Your task to perform on an android device: change the clock display to digital Image 0: 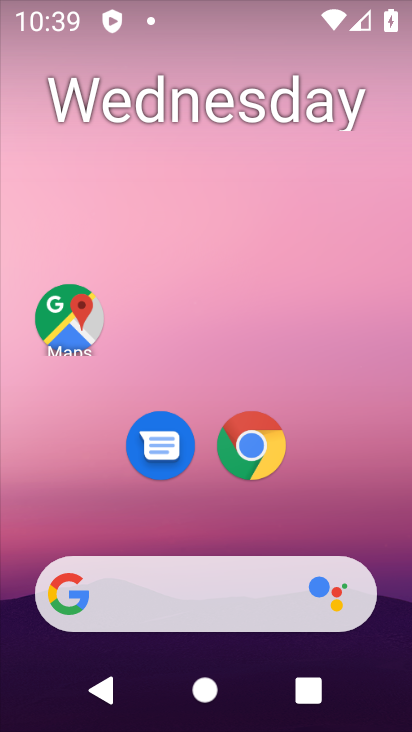
Step 0: drag from (299, 402) to (300, 179)
Your task to perform on an android device: change the clock display to digital Image 1: 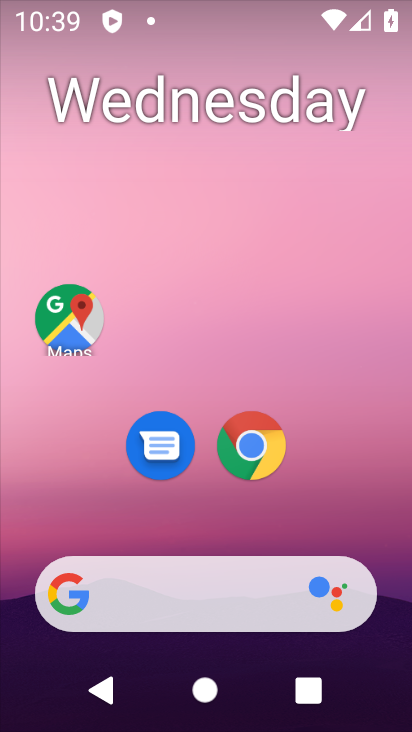
Step 1: drag from (318, 413) to (318, 113)
Your task to perform on an android device: change the clock display to digital Image 2: 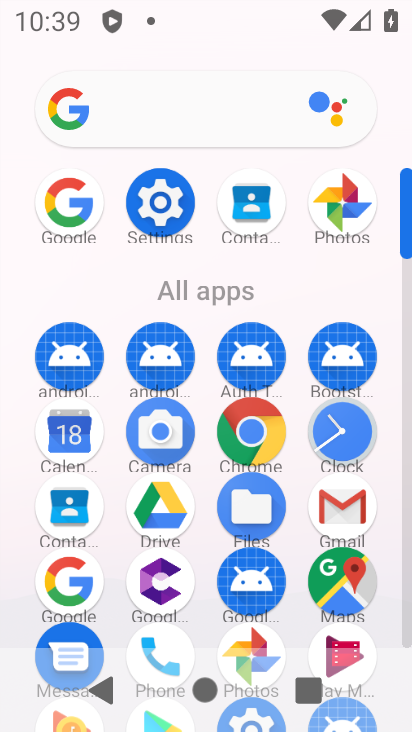
Step 2: click (327, 439)
Your task to perform on an android device: change the clock display to digital Image 3: 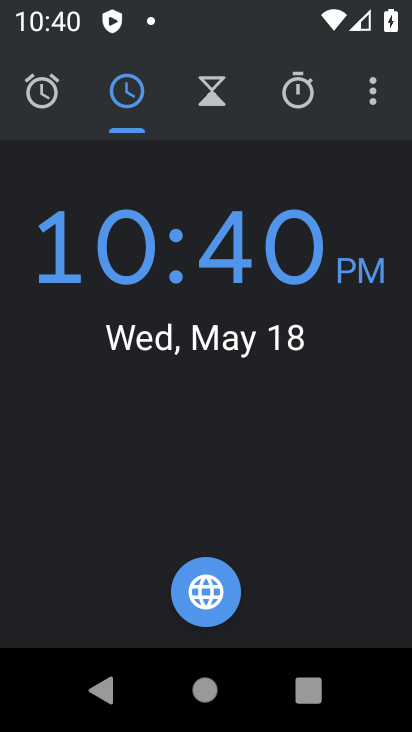
Step 3: click (375, 99)
Your task to perform on an android device: change the clock display to digital Image 4: 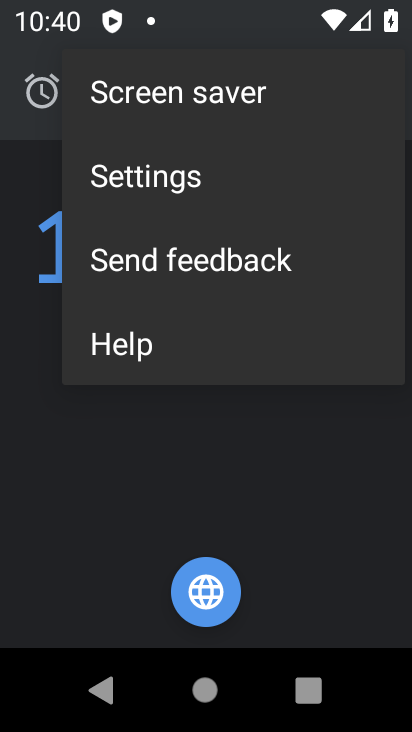
Step 4: click (258, 190)
Your task to perform on an android device: change the clock display to digital Image 5: 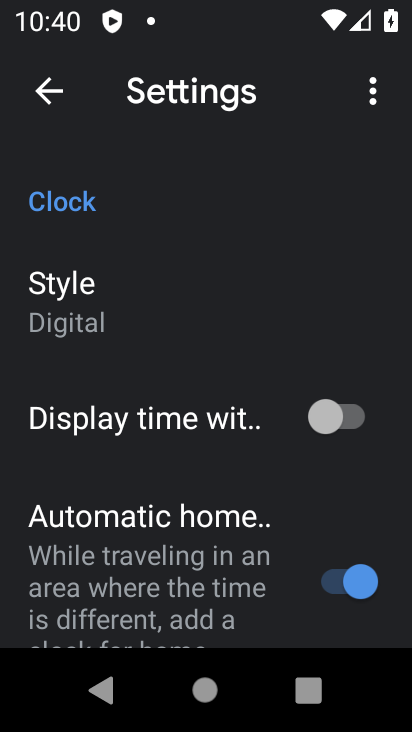
Step 5: click (146, 304)
Your task to perform on an android device: change the clock display to digital Image 6: 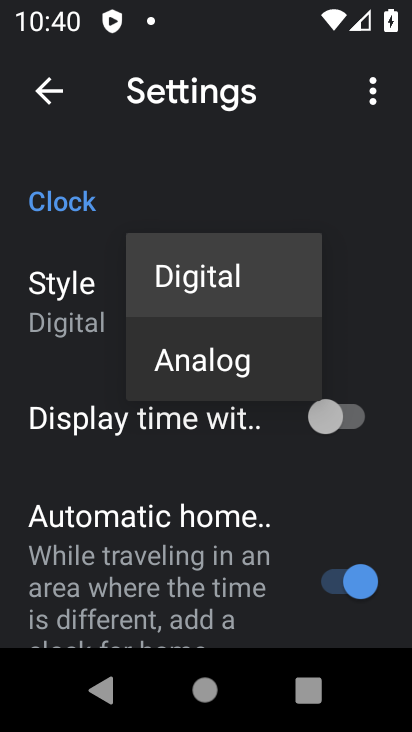
Step 6: click (200, 299)
Your task to perform on an android device: change the clock display to digital Image 7: 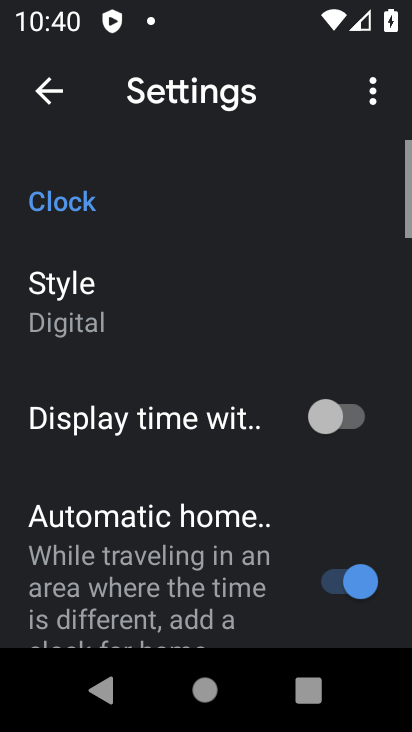
Step 7: task complete